Your task to perform on an android device: search for starred emails in the gmail app Image 0: 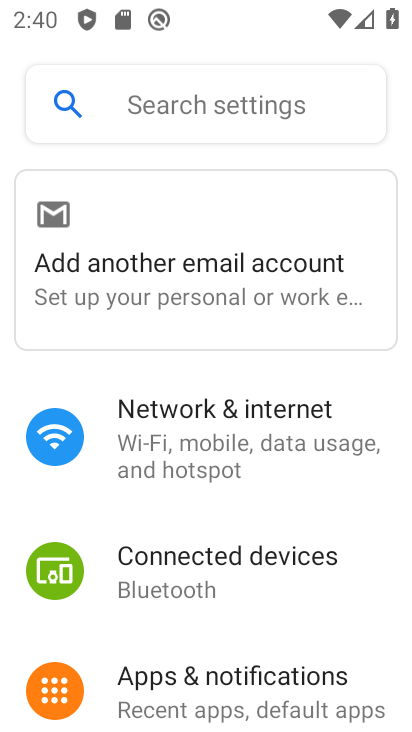
Step 0: press home button
Your task to perform on an android device: search for starred emails in the gmail app Image 1: 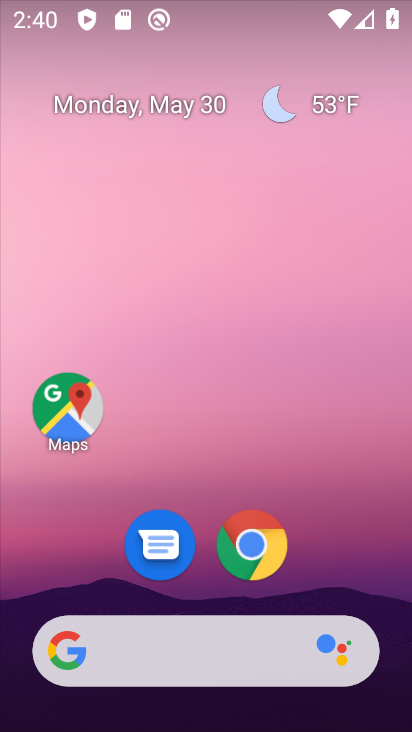
Step 1: drag from (235, 610) to (404, 539)
Your task to perform on an android device: search for starred emails in the gmail app Image 2: 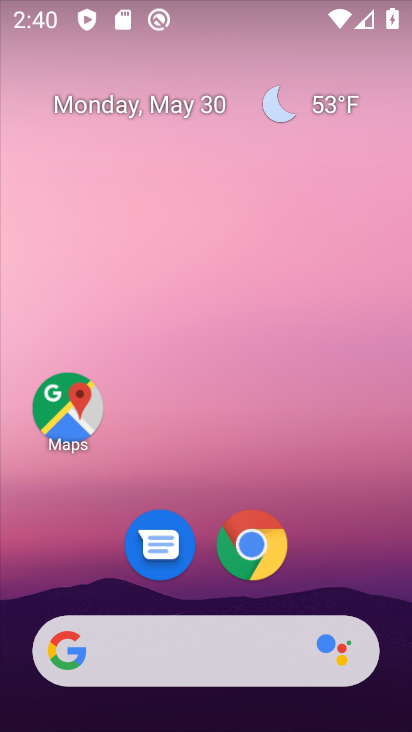
Step 2: drag from (292, 602) to (378, 452)
Your task to perform on an android device: search for starred emails in the gmail app Image 3: 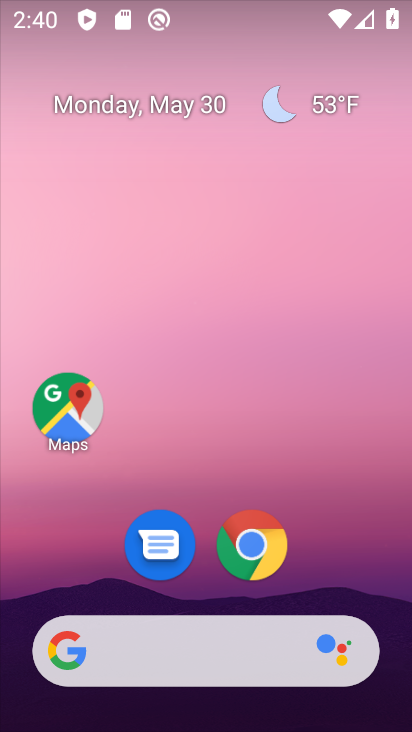
Step 3: drag from (363, 526) to (396, 567)
Your task to perform on an android device: search for starred emails in the gmail app Image 4: 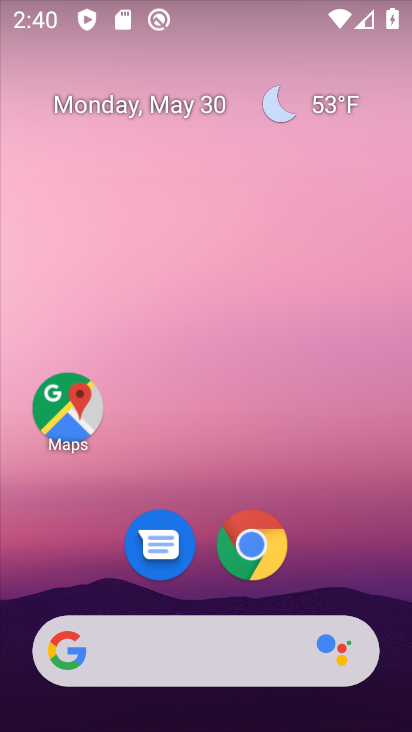
Step 4: drag from (194, 610) to (109, 36)
Your task to perform on an android device: search for starred emails in the gmail app Image 5: 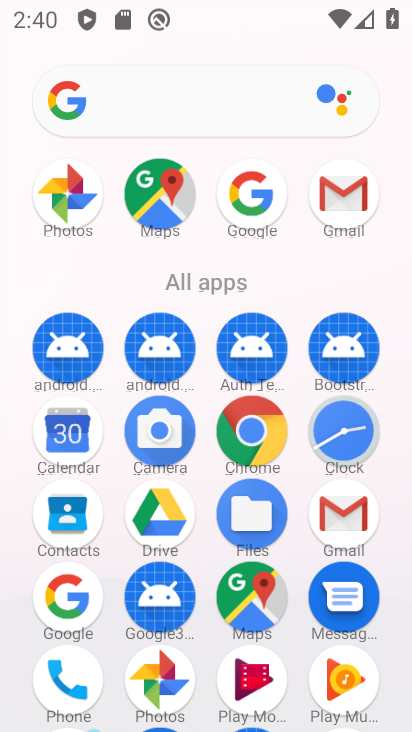
Step 5: click (338, 526)
Your task to perform on an android device: search for starred emails in the gmail app Image 6: 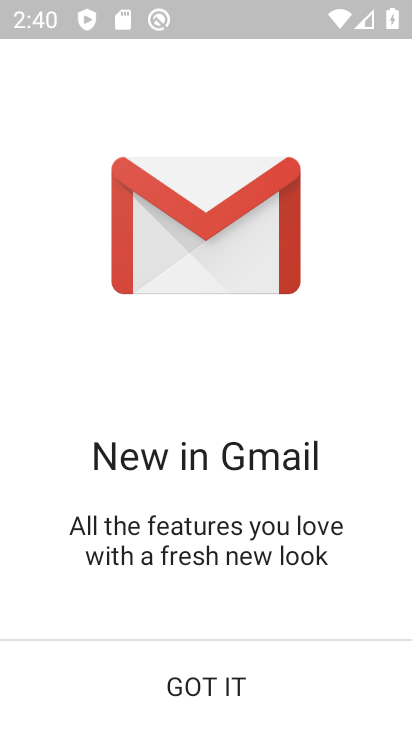
Step 6: click (243, 669)
Your task to perform on an android device: search for starred emails in the gmail app Image 7: 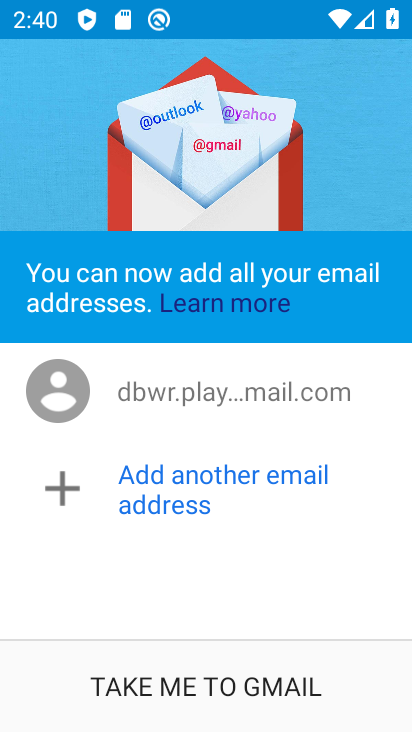
Step 7: click (245, 670)
Your task to perform on an android device: search for starred emails in the gmail app Image 8: 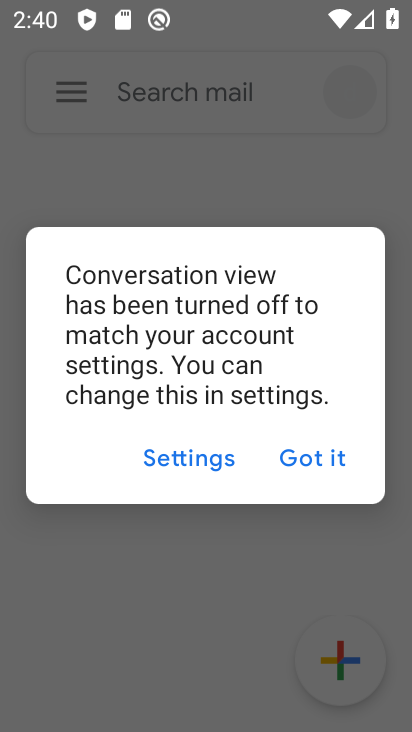
Step 8: click (330, 461)
Your task to perform on an android device: search for starred emails in the gmail app Image 9: 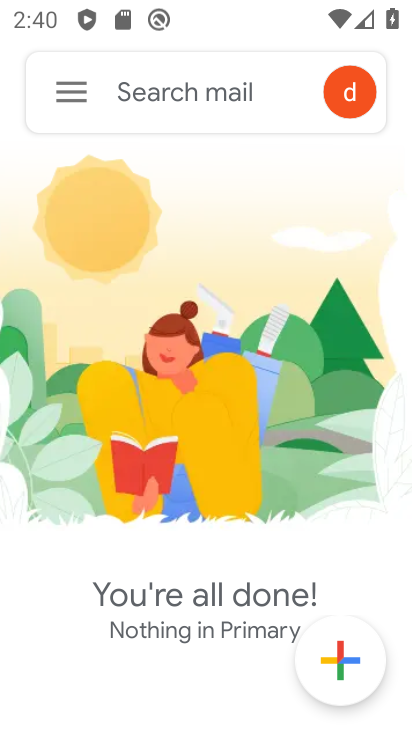
Step 9: click (81, 95)
Your task to perform on an android device: search for starred emails in the gmail app Image 10: 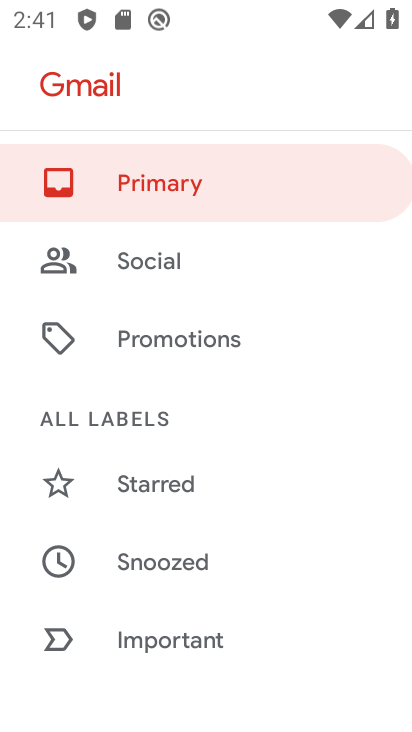
Step 10: click (167, 464)
Your task to perform on an android device: search for starred emails in the gmail app Image 11: 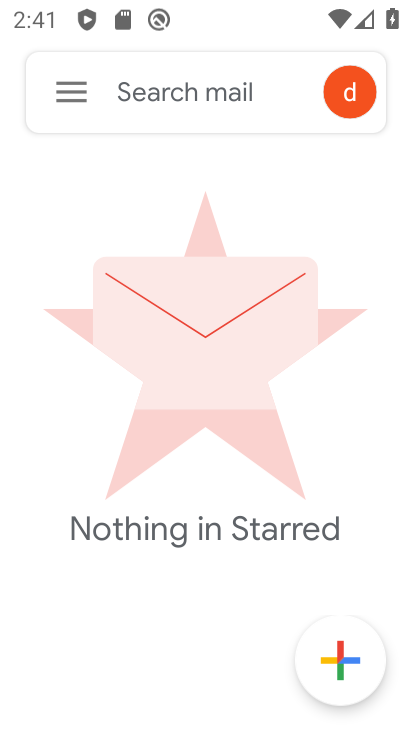
Step 11: task complete